Your task to perform on an android device: Open network settings Image 0: 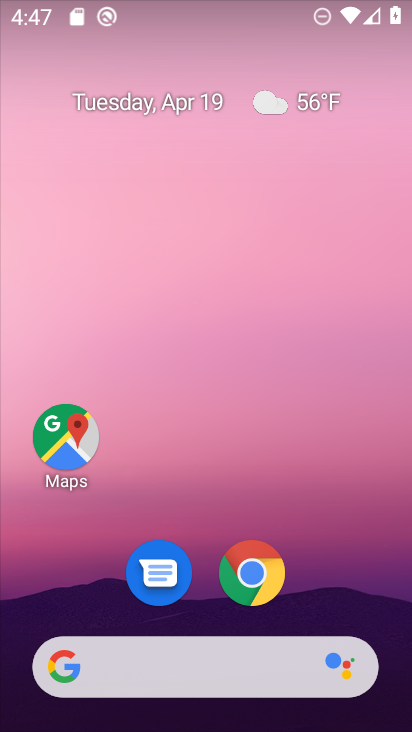
Step 0: drag from (364, 588) to (370, 21)
Your task to perform on an android device: Open network settings Image 1: 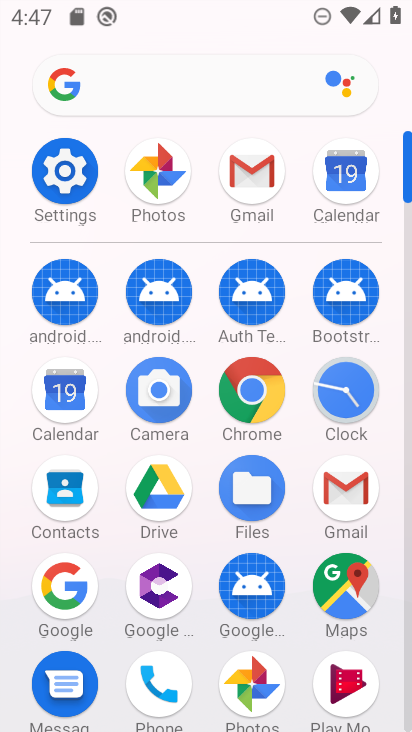
Step 1: click (59, 177)
Your task to perform on an android device: Open network settings Image 2: 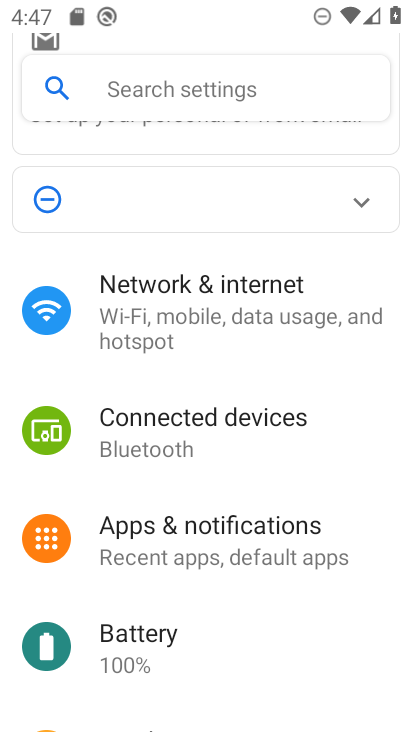
Step 2: click (195, 314)
Your task to perform on an android device: Open network settings Image 3: 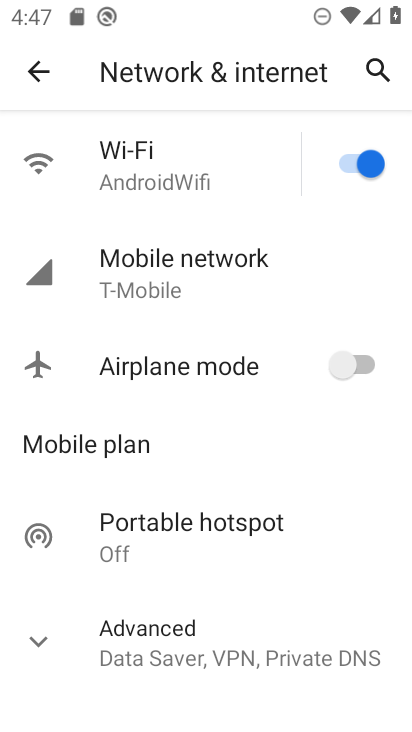
Step 3: click (163, 277)
Your task to perform on an android device: Open network settings Image 4: 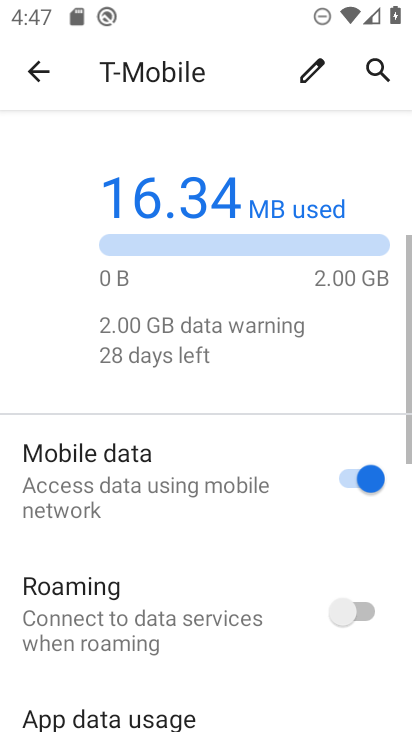
Step 4: drag from (243, 557) to (246, 151)
Your task to perform on an android device: Open network settings Image 5: 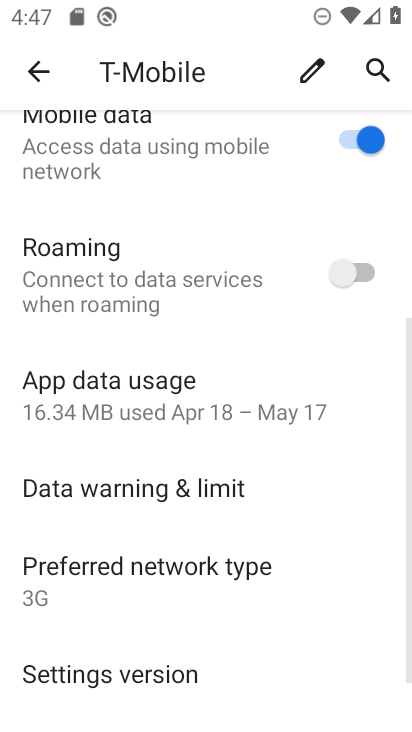
Step 5: drag from (197, 550) to (204, 167)
Your task to perform on an android device: Open network settings Image 6: 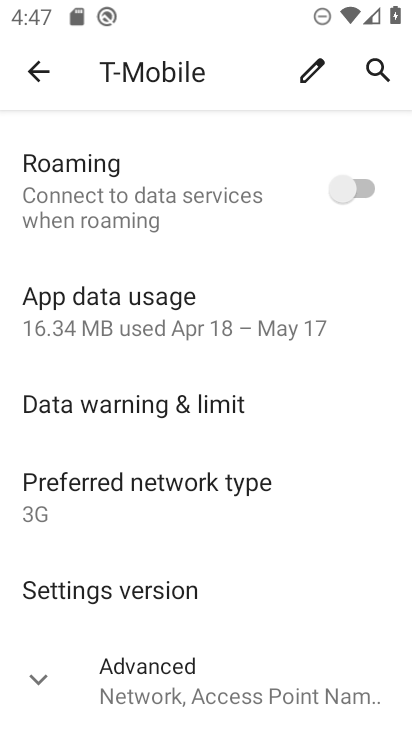
Step 6: click (36, 680)
Your task to perform on an android device: Open network settings Image 7: 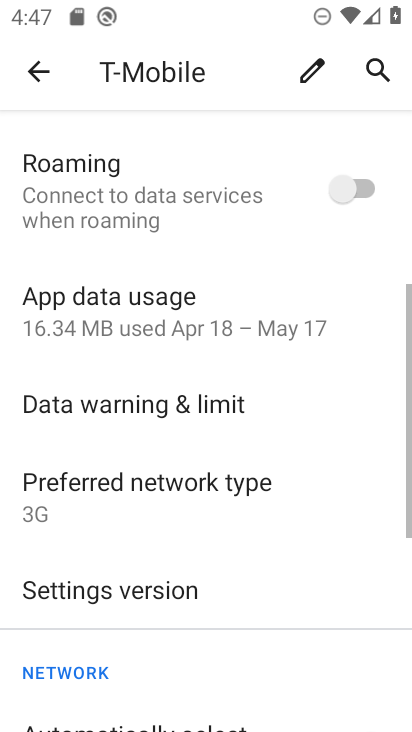
Step 7: task complete